Your task to perform on an android device: Go to privacy settings Image 0: 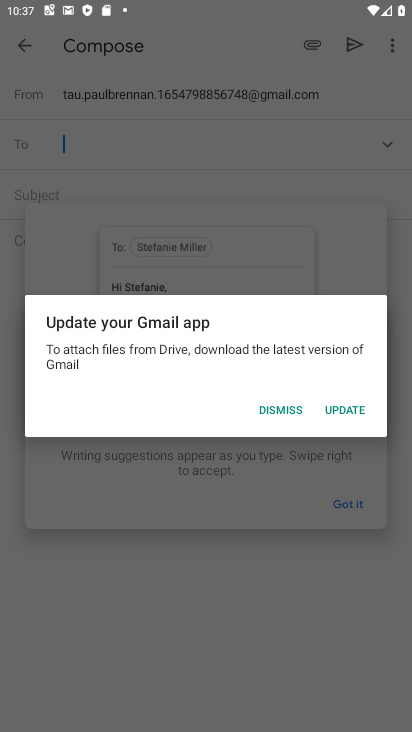
Step 0: press home button
Your task to perform on an android device: Go to privacy settings Image 1: 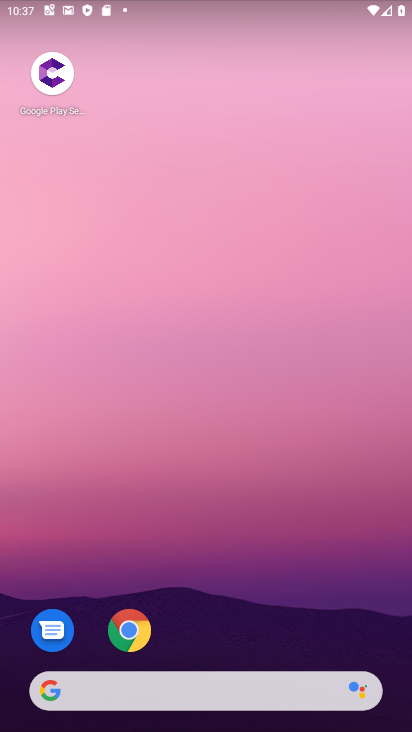
Step 1: drag from (229, 624) to (214, 13)
Your task to perform on an android device: Go to privacy settings Image 2: 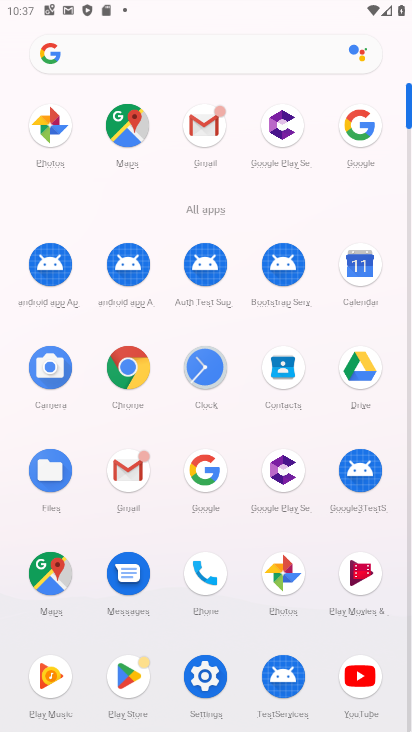
Step 2: click (208, 666)
Your task to perform on an android device: Go to privacy settings Image 3: 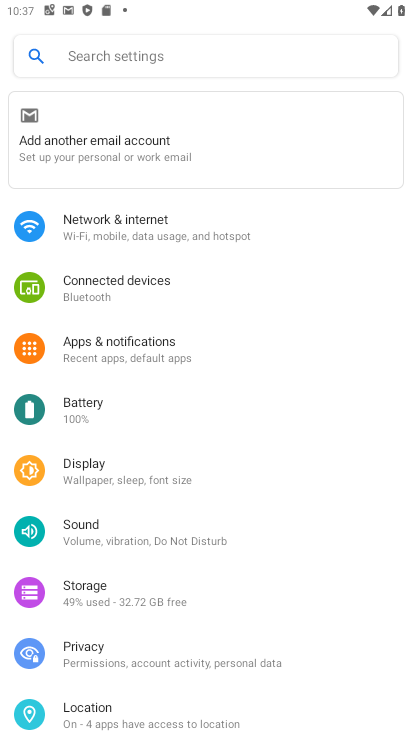
Step 3: click (101, 657)
Your task to perform on an android device: Go to privacy settings Image 4: 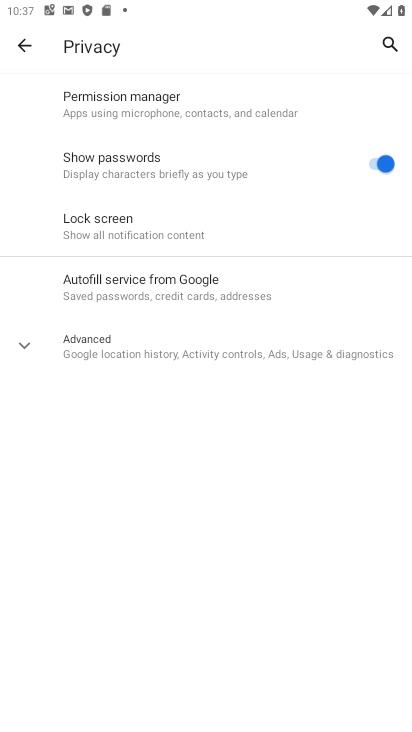
Step 4: click (24, 344)
Your task to perform on an android device: Go to privacy settings Image 5: 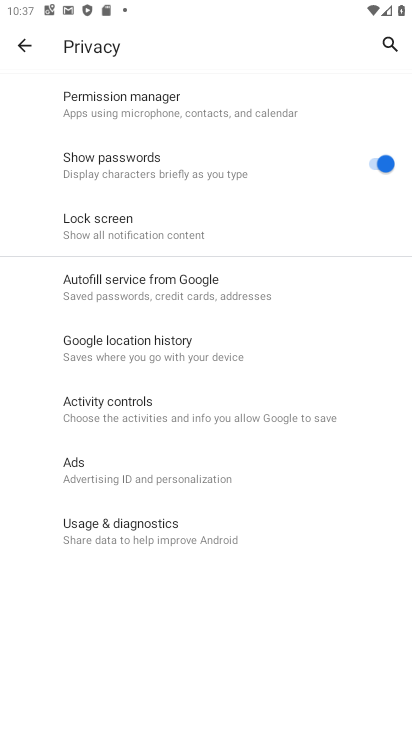
Step 5: task complete